Your task to perform on an android device: Go to Google Image 0: 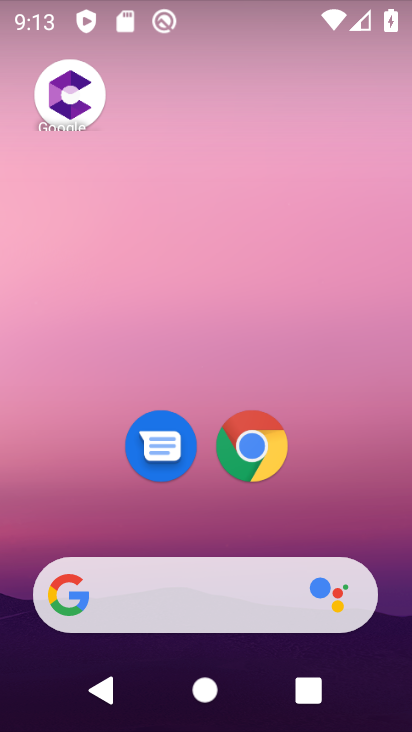
Step 0: drag from (225, 599) to (183, 62)
Your task to perform on an android device: Go to Google Image 1: 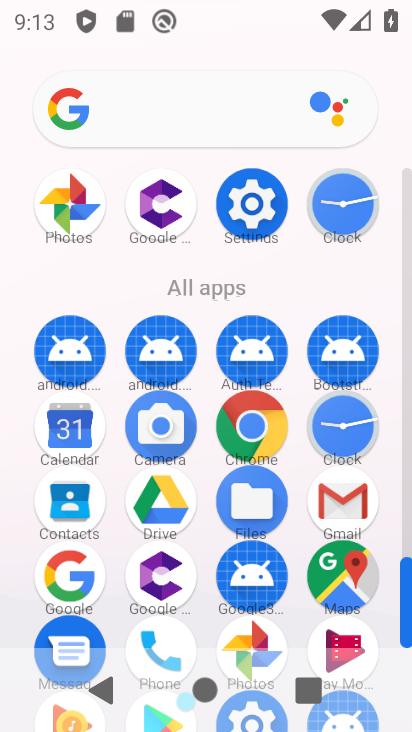
Step 1: click (82, 576)
Your task to perform on an android device: Go to Google Image 2: 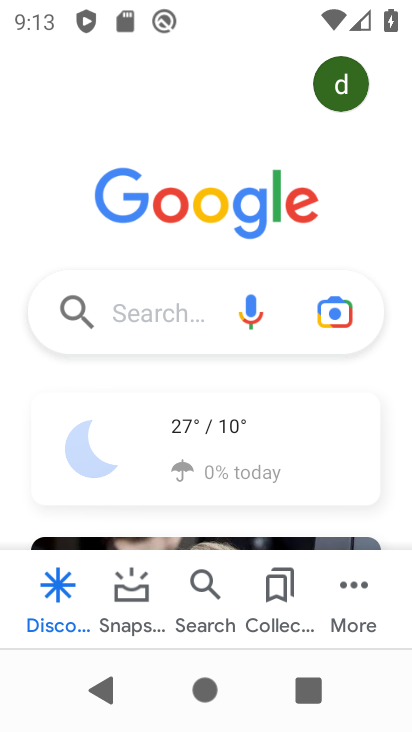
Step 2: task complete